Your task to perform on an android device: delete browsing data in the chrome app Image 0: 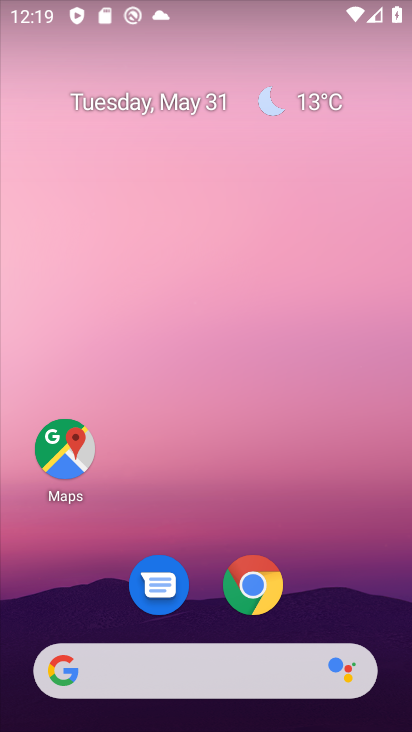
Step 0: drag from (209, 496) to (234, 432)
Your task to perform on an android device: delete browsing data in the chrome app Image 1: 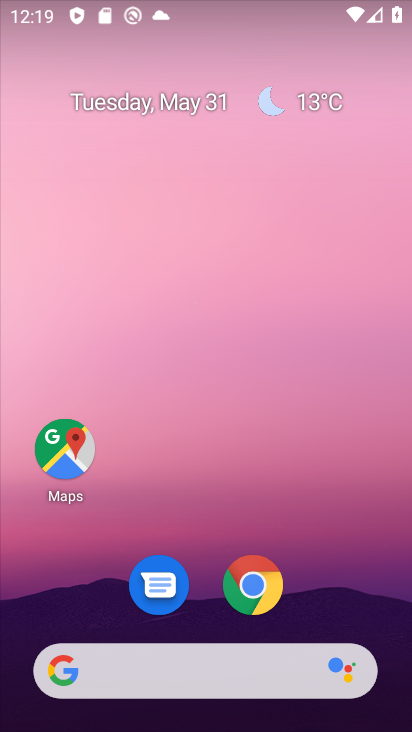
Step 1: click (249, 587)
Your task to perform on an android device: delete browsing data in the chrome app Image 2: 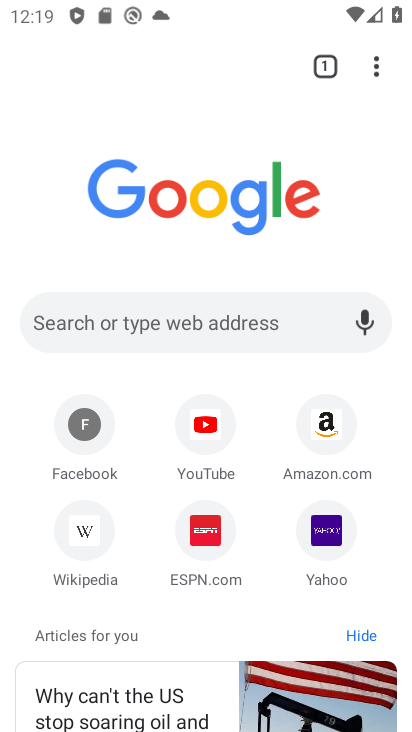
Step 2: click (376, 67)
Your task to perform on an android device: delete browsing data in the chrome app Image 3: 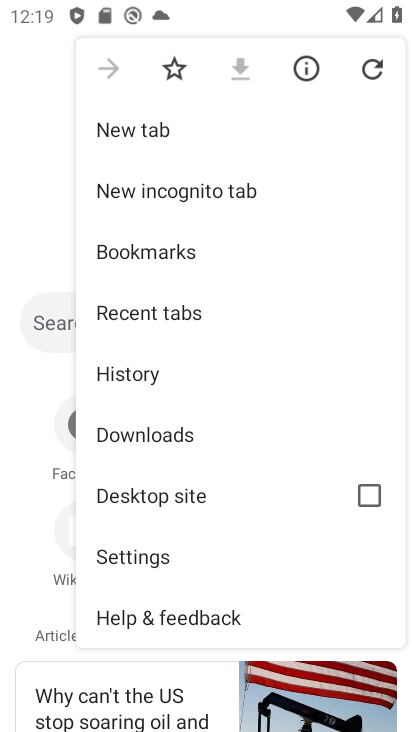
Step 3: click (167, 378)
Your task to perform on an android device: delete browsing data in the chrome app Image 4: 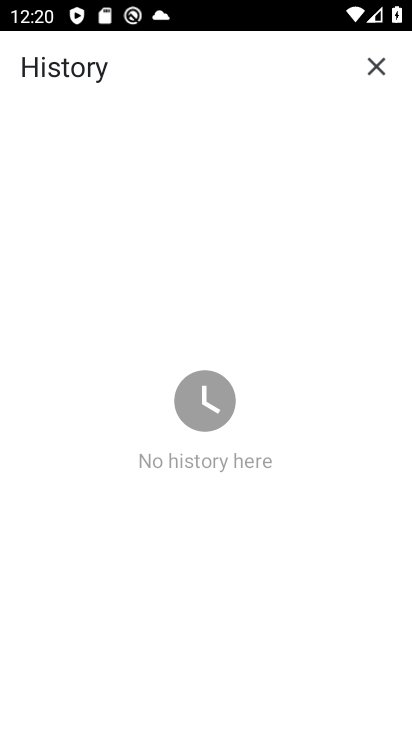
Step 4: task complete